Your task to perform on an android device: toggle priority inbox in the gmail app Image 0: 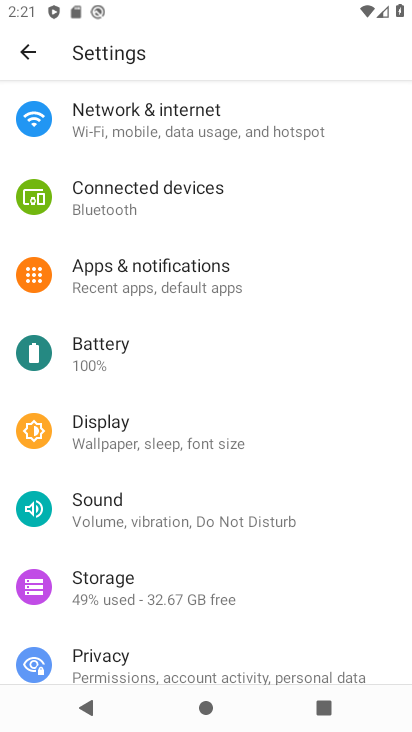
Step 0: press home button
Your task to perform on an android device: toggle priority inbox in the gmail app Image 1: 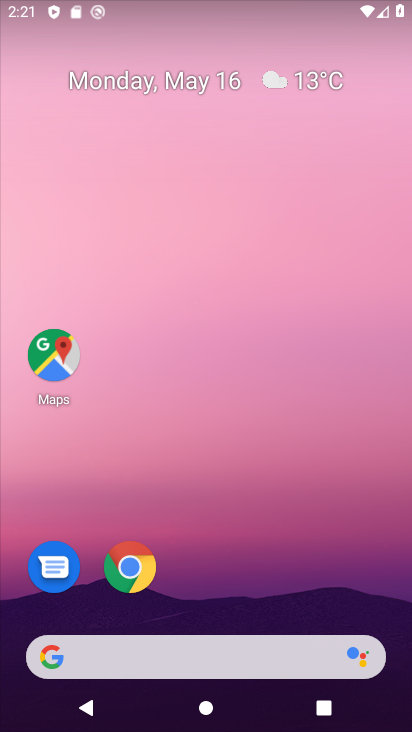
Step 1: drag from (328, 582) to (320, 74)
Your task to perform on an android device: toggle priority inbox in the gmail app Image 2: 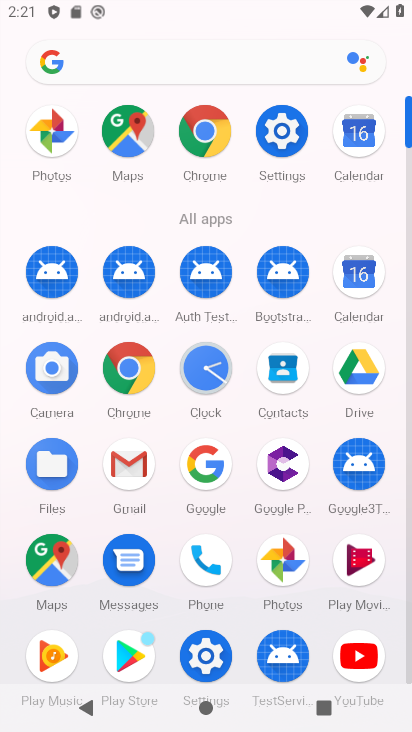
Step 2: click (139, 459)
Your task to perform on an android device: toggle priority inbox in the gmail app Image 3: 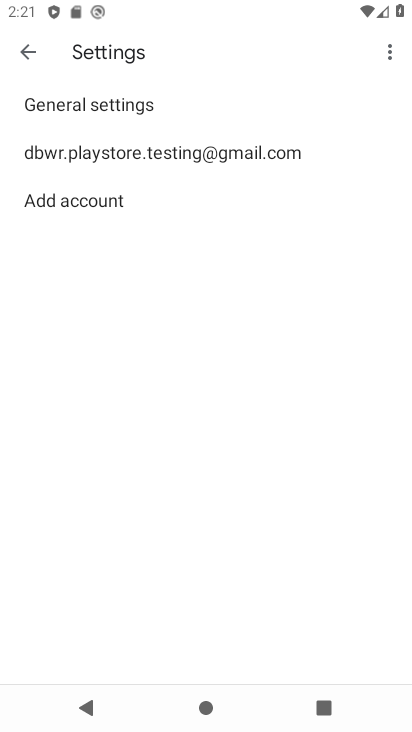
Step 3: click (128, 165)
Your task to perform on an android device: toggle priority inbox in the gmail app Image 4: 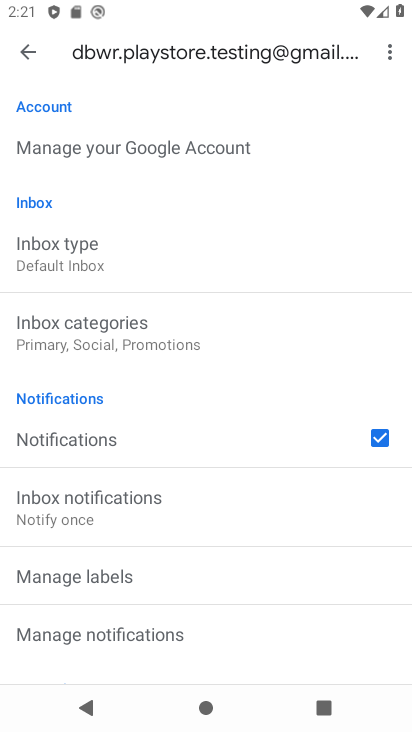
Step 4: click (105, 243)
Your task to perform on an android device: toggle priority inbox in the gmail app Image 5: 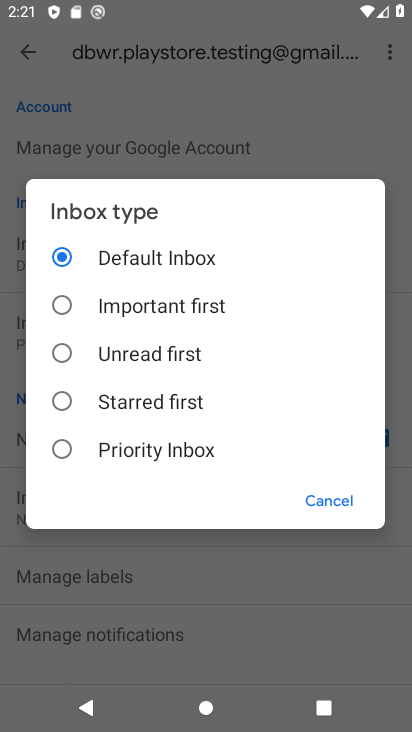
Step 5: click (159, 439)
Your task to perform on an android device: toggle priority inbox in the gmail app Image 6: 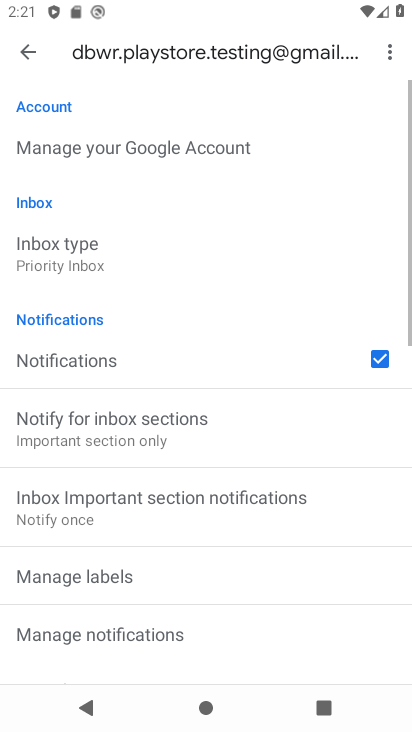
Step 6: task complete